Your task to perform on an android device: Open settings on Google Maps Image 0: 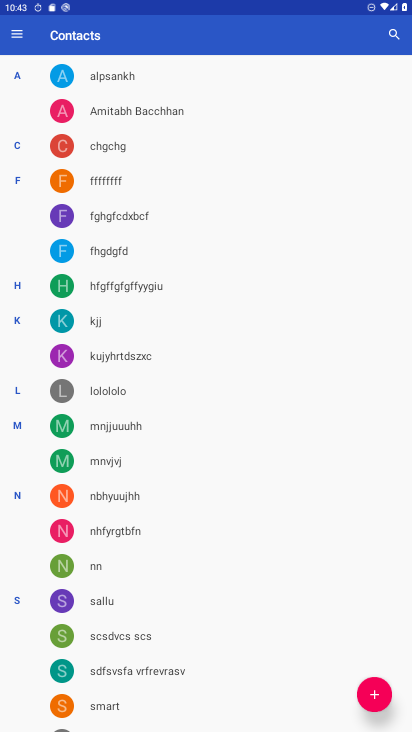
Step 0: press home button
Your task to perform on an android device: Open settings on Google Maps Image 1: 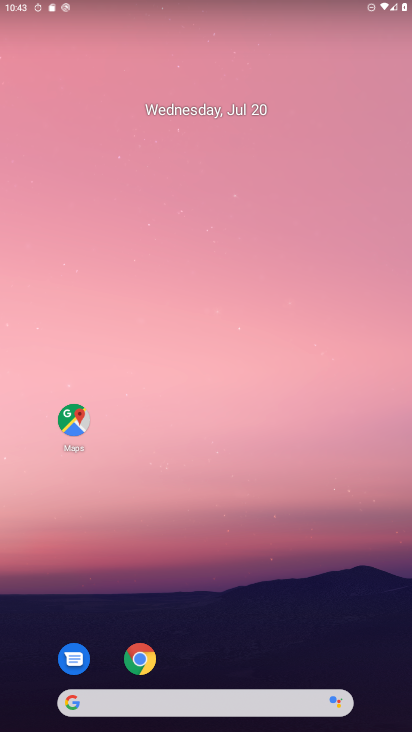
Step 1: drag from (251, 600) to (185, 119)
Your task to perform on an android device: Open settings on Google Maps Image 2: 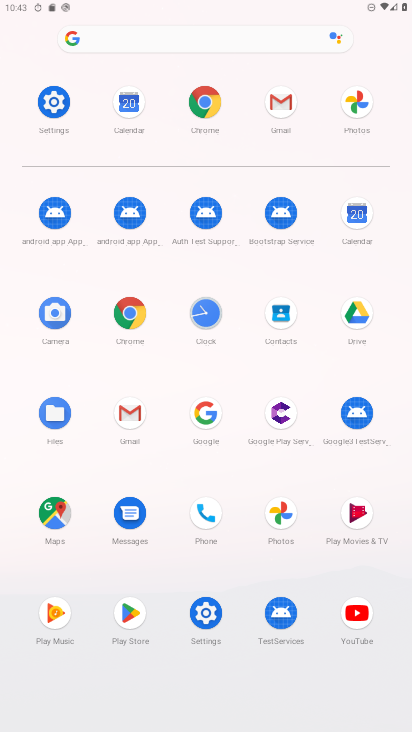
Step 2: click (56, 516)
Your task to perform on an android device: Open settings on Google Maps Image 3: 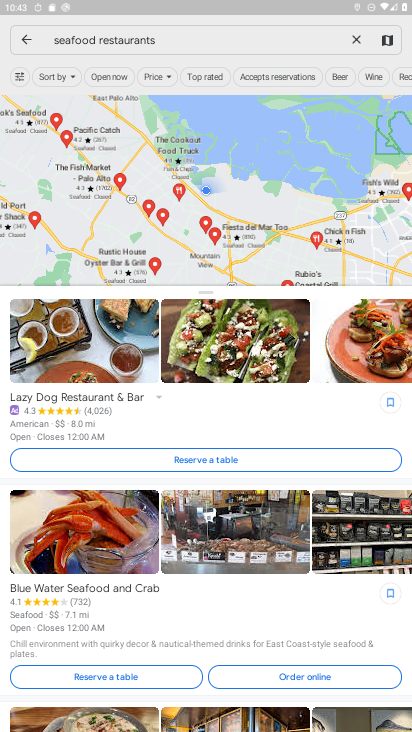
Step 3: click (26, 36)
Your task to perform on an android device: Open settings on Google Maps Image 4: 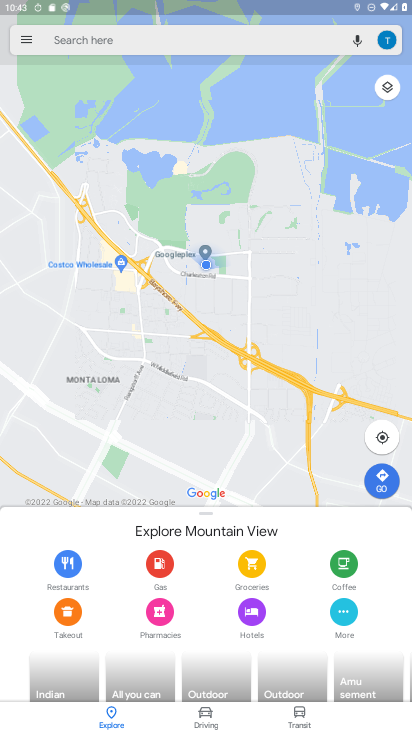
Step 4: click (25, 39)
Your task to perform on an android device: Open settings on Google Maps Image 5: 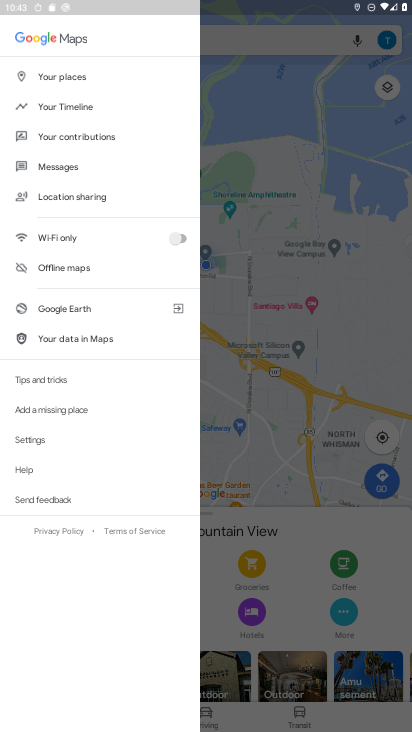
Step 5: click (34, 438)
Your task to perform on an android device: Open settings on Google Maps Image 6: 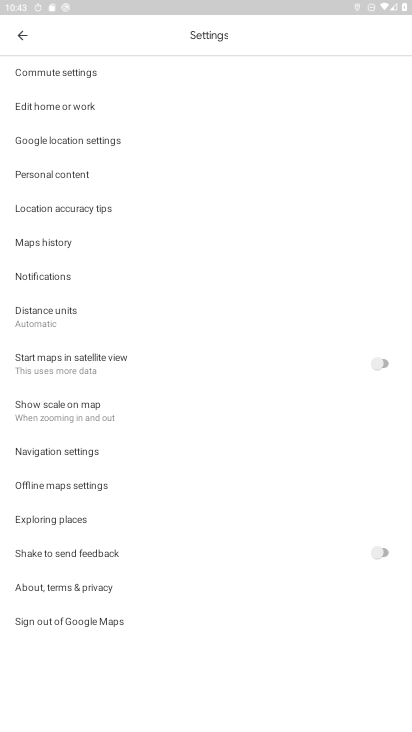
Step 6: task complete